Your task to perform on an android device: turn on data saver in the chrome app Image 0: 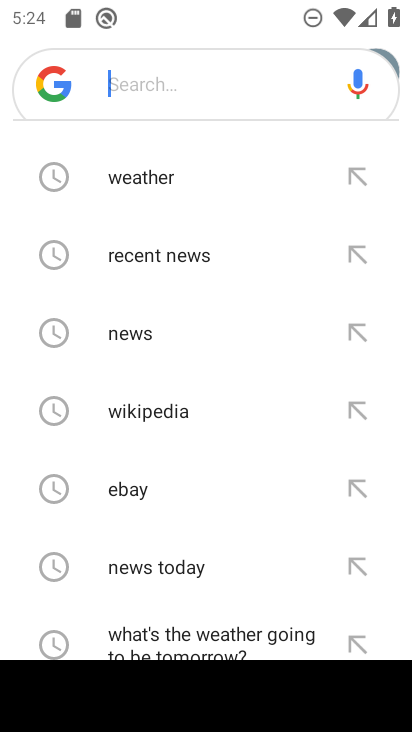
Step 0: press back button
Your task to perform on an android device: turn on data saver in the chrome app Image 1: 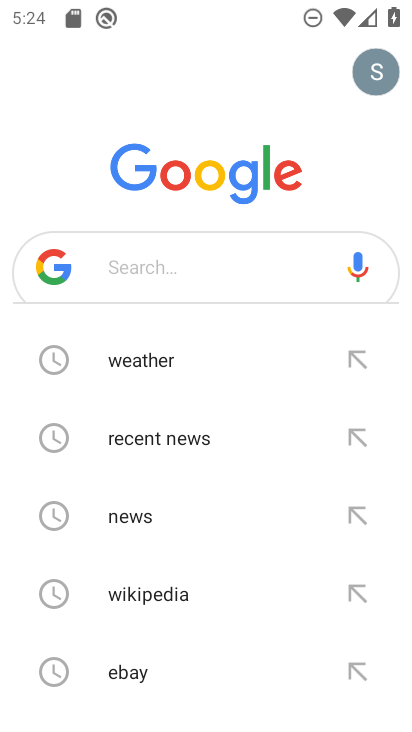
Step 1: press back button
Your task to perform on an android device: turn on data saver in the chrome app Image 2: 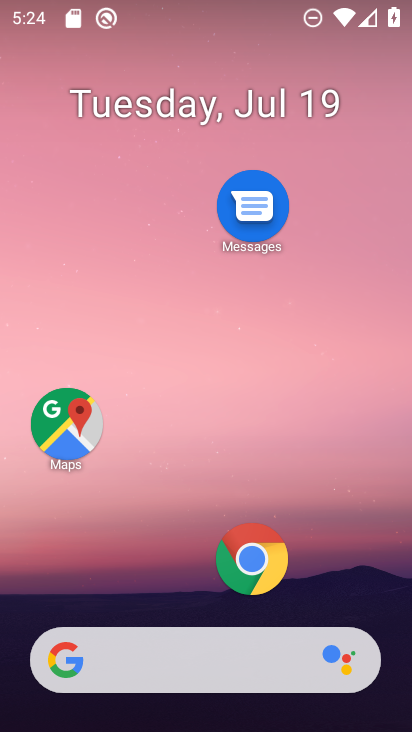
Step 2: click (253, 534)
Your task to perform on an android device: turn on data saver in the chrome app Image 3: 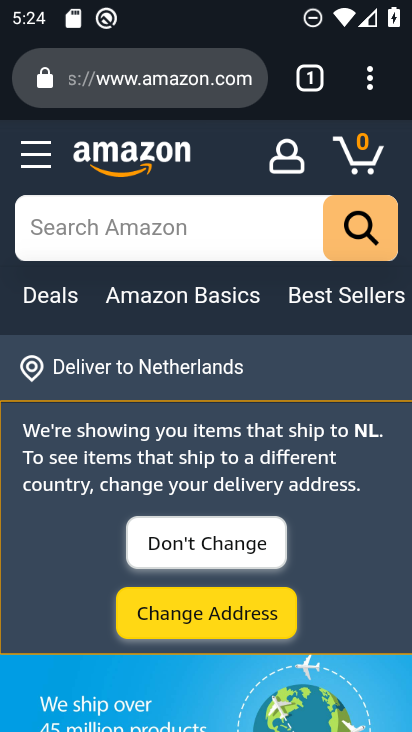
Step 3: drag from (374, 68) to (108, 630)
Your task to perform on an android device: turn on data saver in the chrome app Image 4: 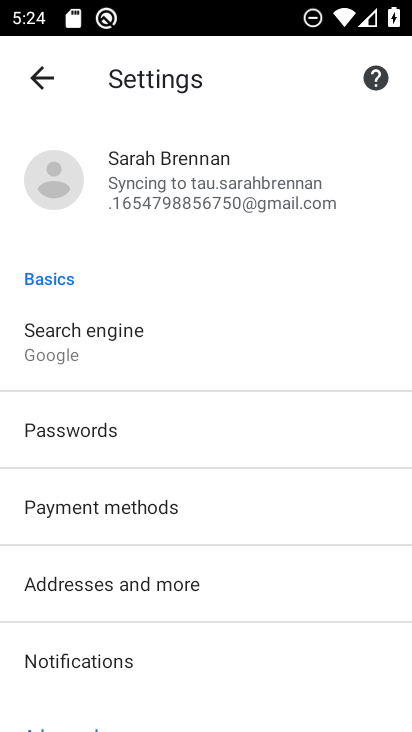
Step 4: drag from (129, 614) to (190, 202)
Your task to perform on an android device: turn on data saver in the chrome app Image 5: 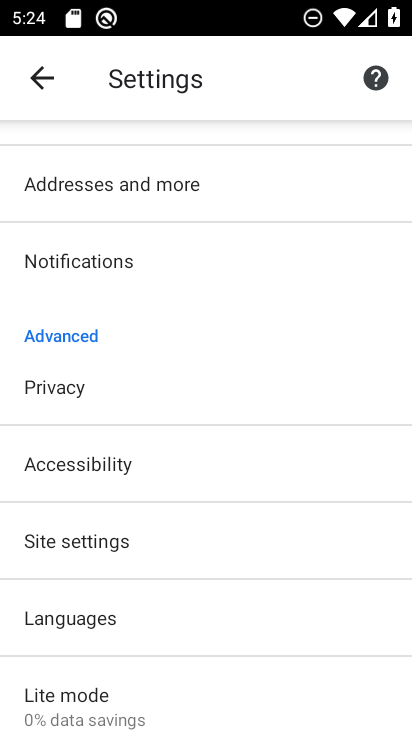
Step 5: click (132, 703)
Your task to perform on an android device: turn on data saver in the chrome app Image 6: 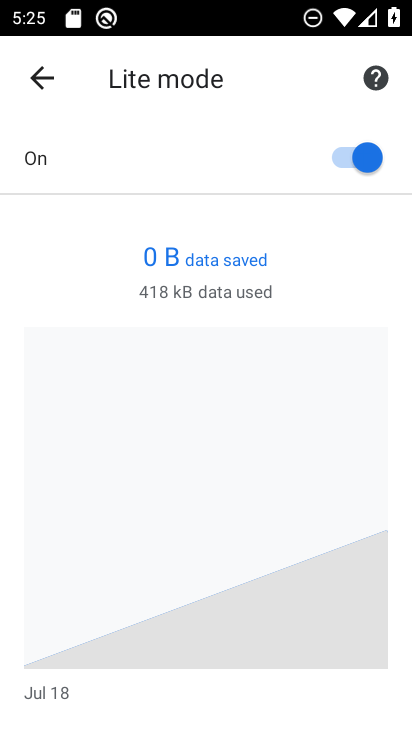
Step 6: task complete